Your task to perform on an android device: toggle javascript in the chrome app Image 0: 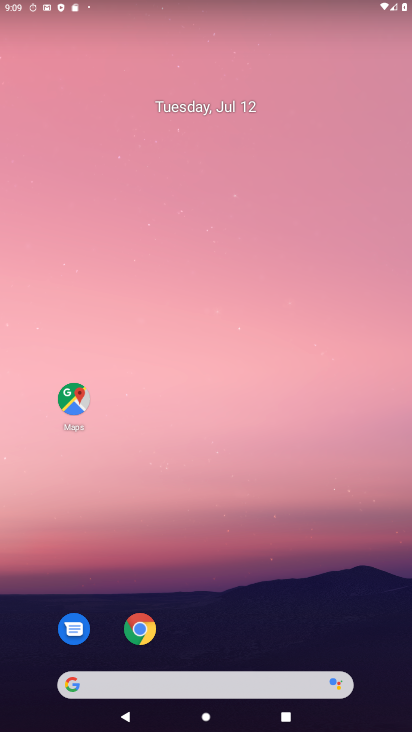
Step 0: drag from (301, 686) to (251, 143)
Your task to perform on an android device: toggle javascript in the chrome app Image 1: 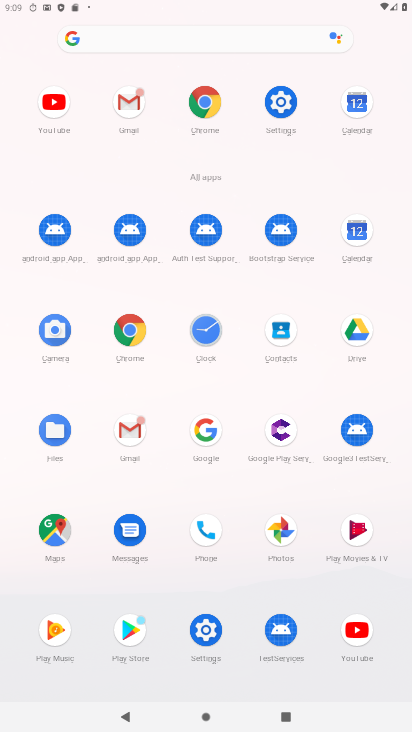
Step 1: click (201, 98)
Your task to perform on an android device: toggle javascript in the chrome app Image 2: 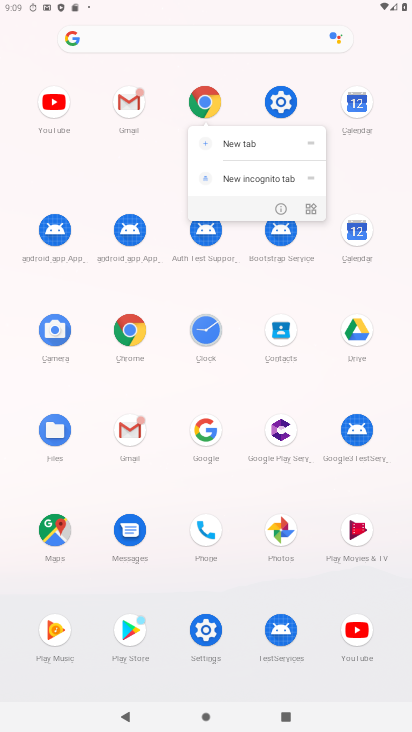
Step 2: click (210, 104)
Your task to perform on an android device: toggle javascript in the chrome app Image 3: 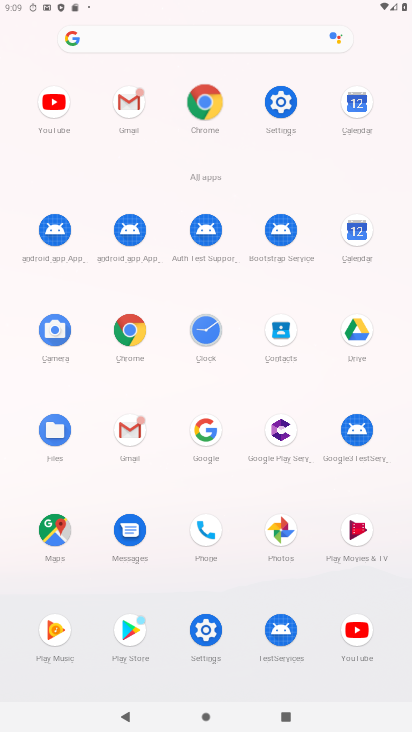
Step 3: click (211, 104)
Your task to perform on an android device: toggle javascript in the chrome app Image 4: 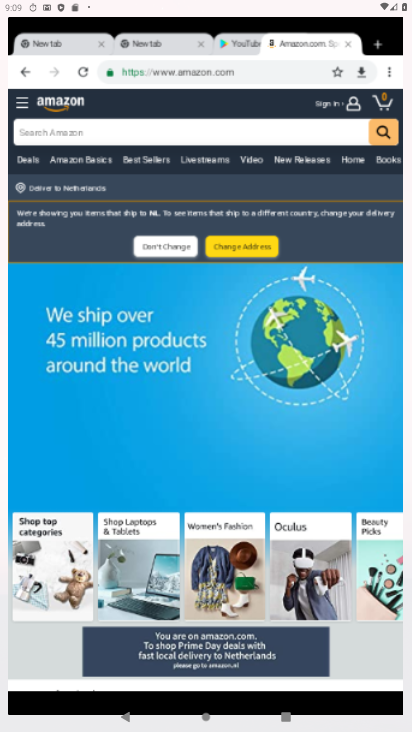
Step 4: click (211, 104)
Your task to perform on an android device: toggle javascript in the chrome app Image 5: 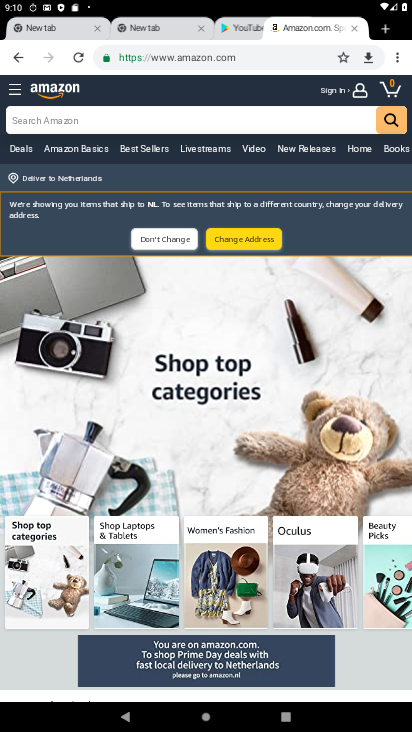
Step 5: drag from (396, 61) to (275, 379)
Your task to perform on an android device: toggle javascript in the chrome app Image 6: 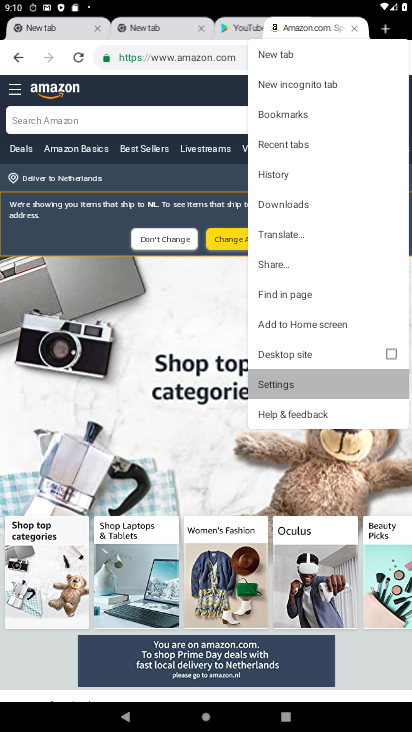
Step 6: click (274, 378)
Your task to perform on an android device: toggle javascript in the chrome app Image 7: 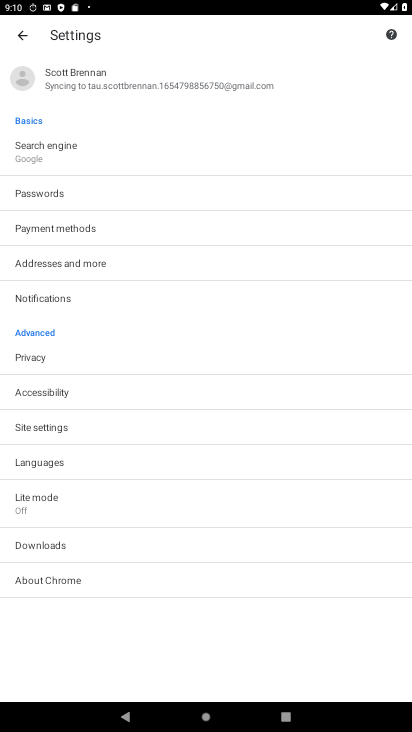
Step 7: click (26, 438)
Your task to perform on an android device: toggle javascript in the chrome app Image 8: 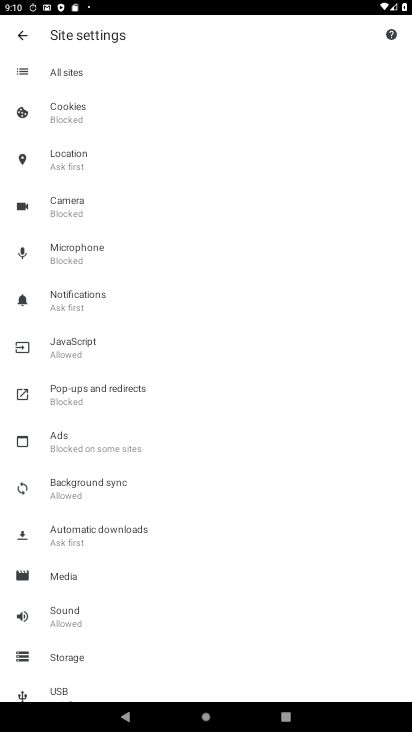
Step 8: click (67, 357)
Your task to perform on an android device: toggle javascript in the chrome app Image 9: 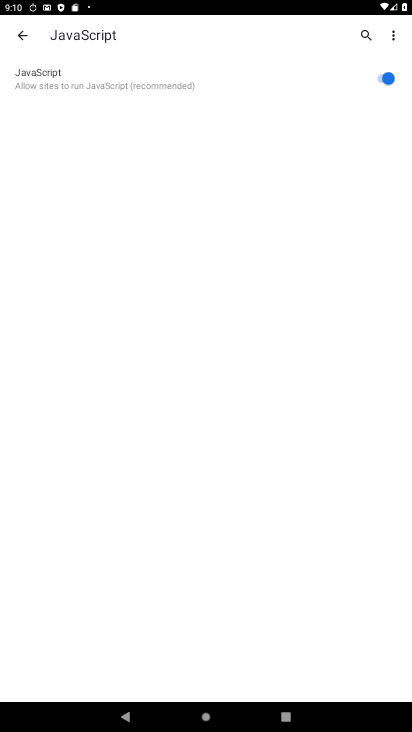
Step 9: click (387, 79)
Your task to perform on an android device: toggle javascript in the chrome app Image 10: 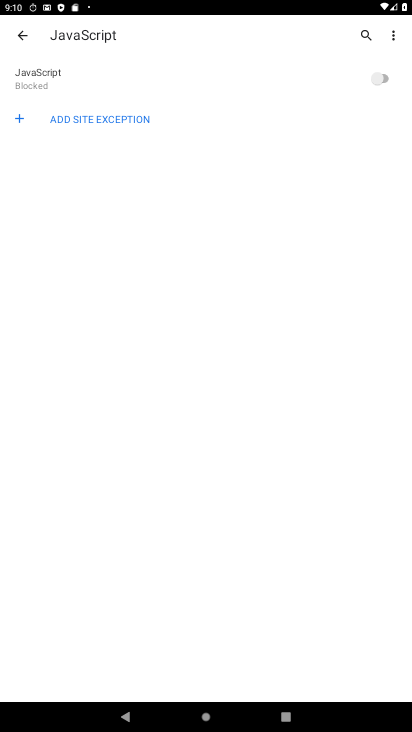
Step 10: task complete